Your task to perform on an android device: Open privacy settings Image 0: 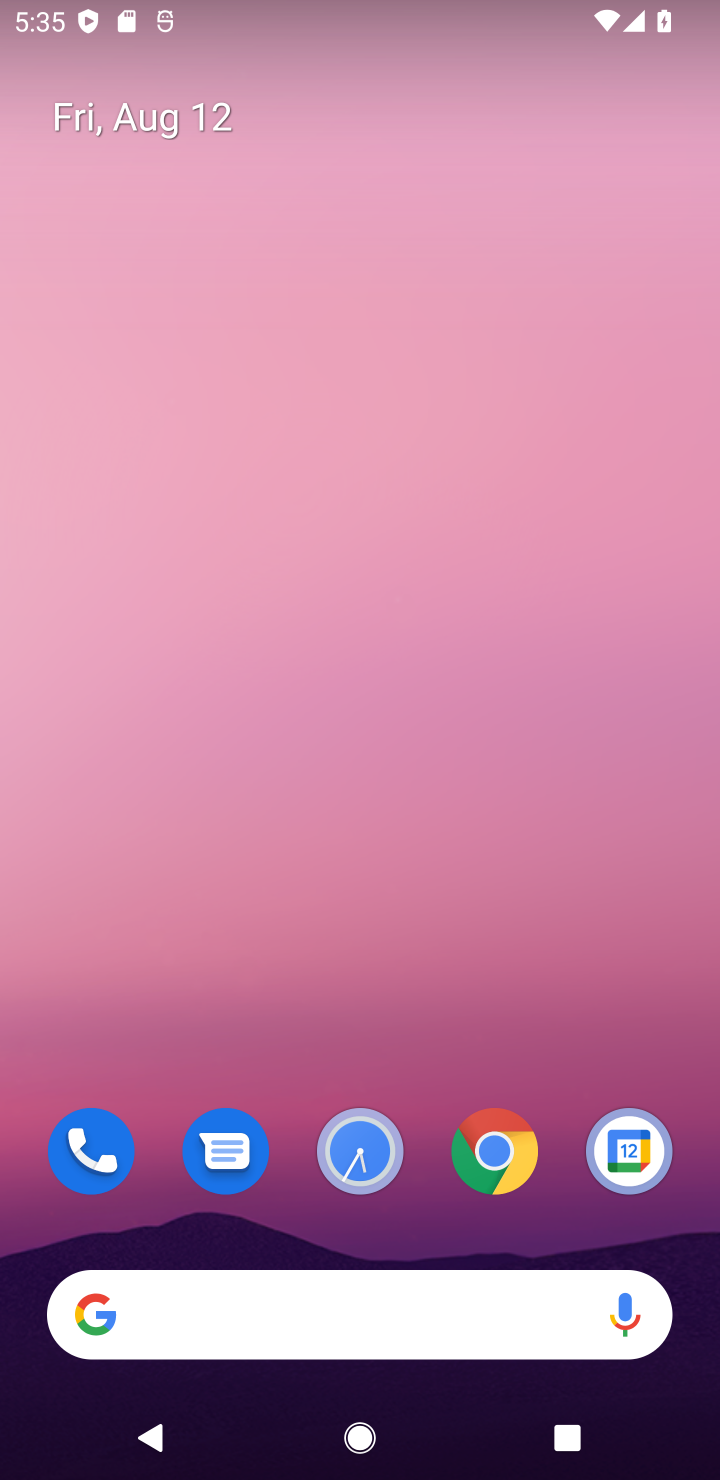
Step 0: drag from (506, 970) to (442, 82)
Your task to perform on an android device: Open privacy settings Image 1: 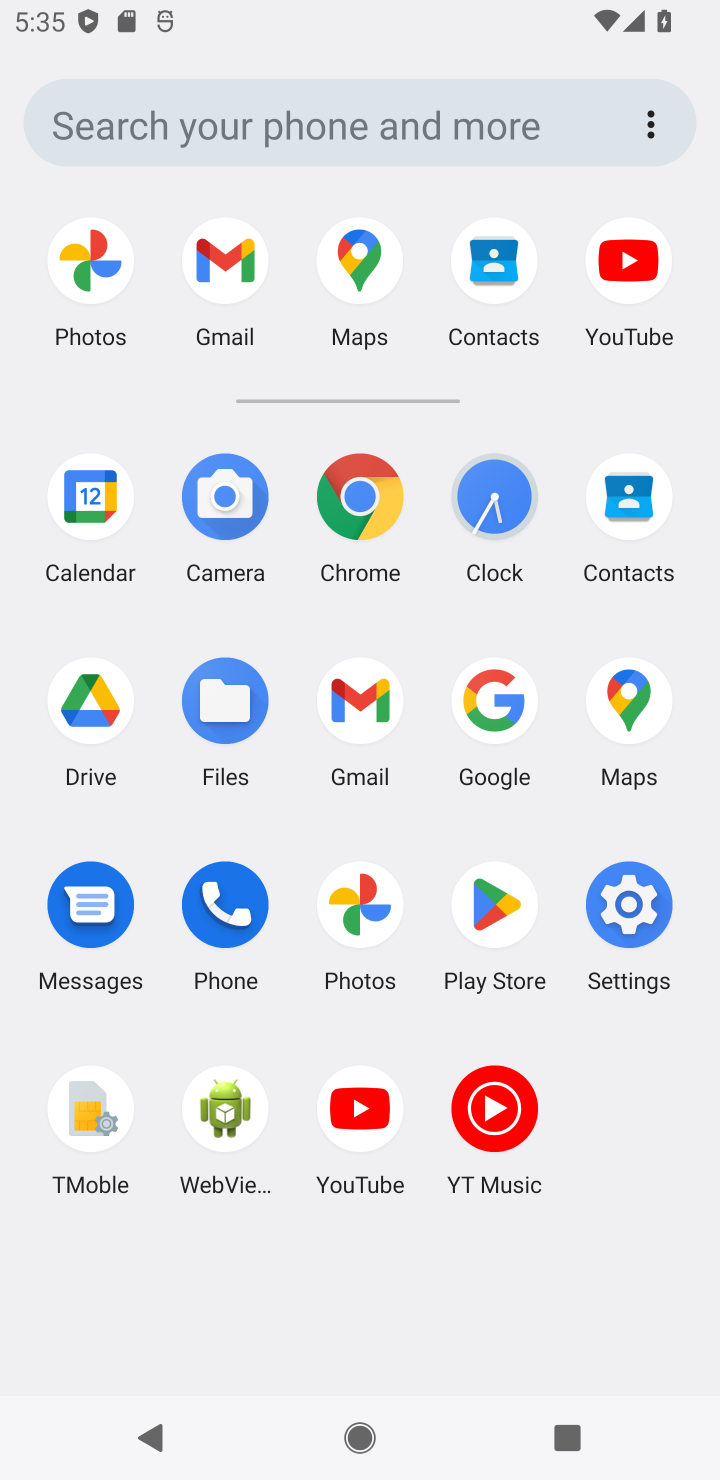
Step 1: click (639, 904)
Your task to perform on an android device: Open privacy settings Image 2: 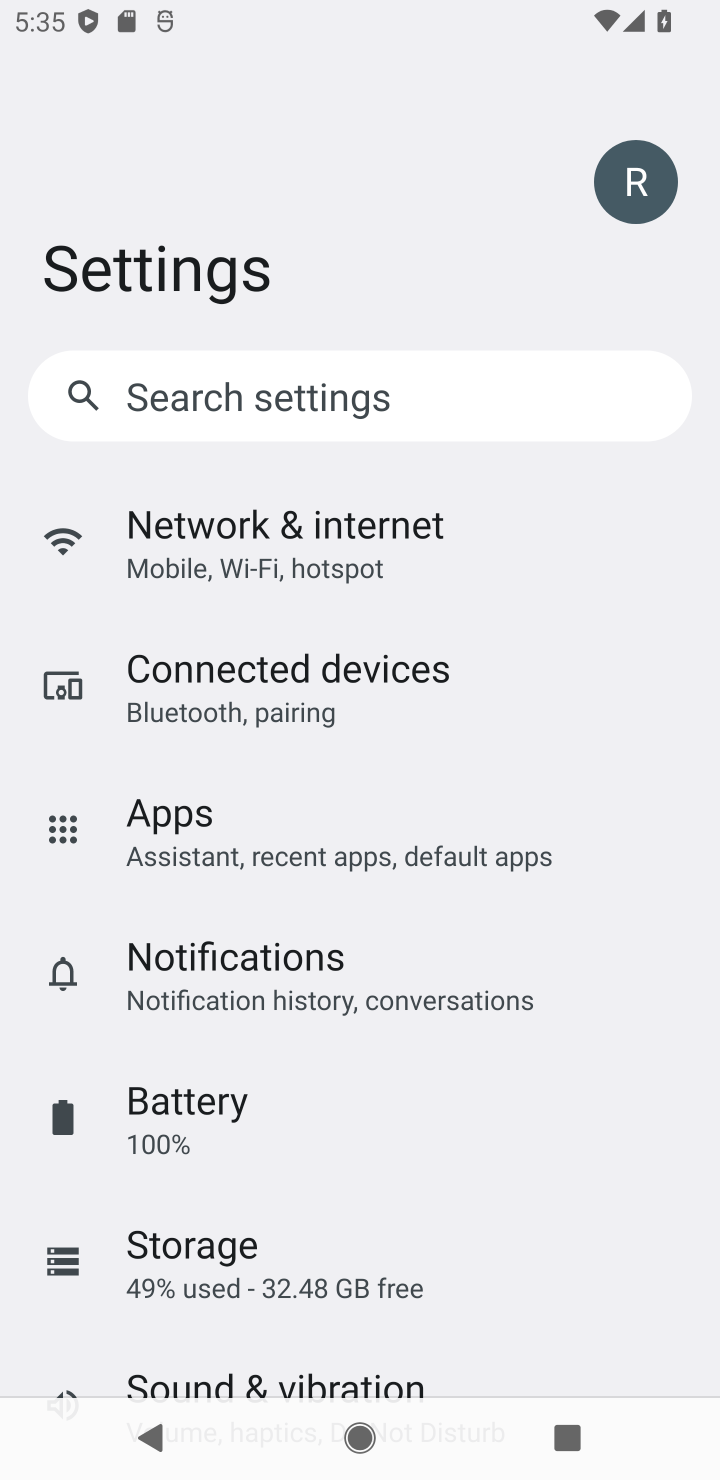
Step 2: drag from (434, 1090) to (387, 308)
Your task to perform on an android device: Open privacy settings Image 3: 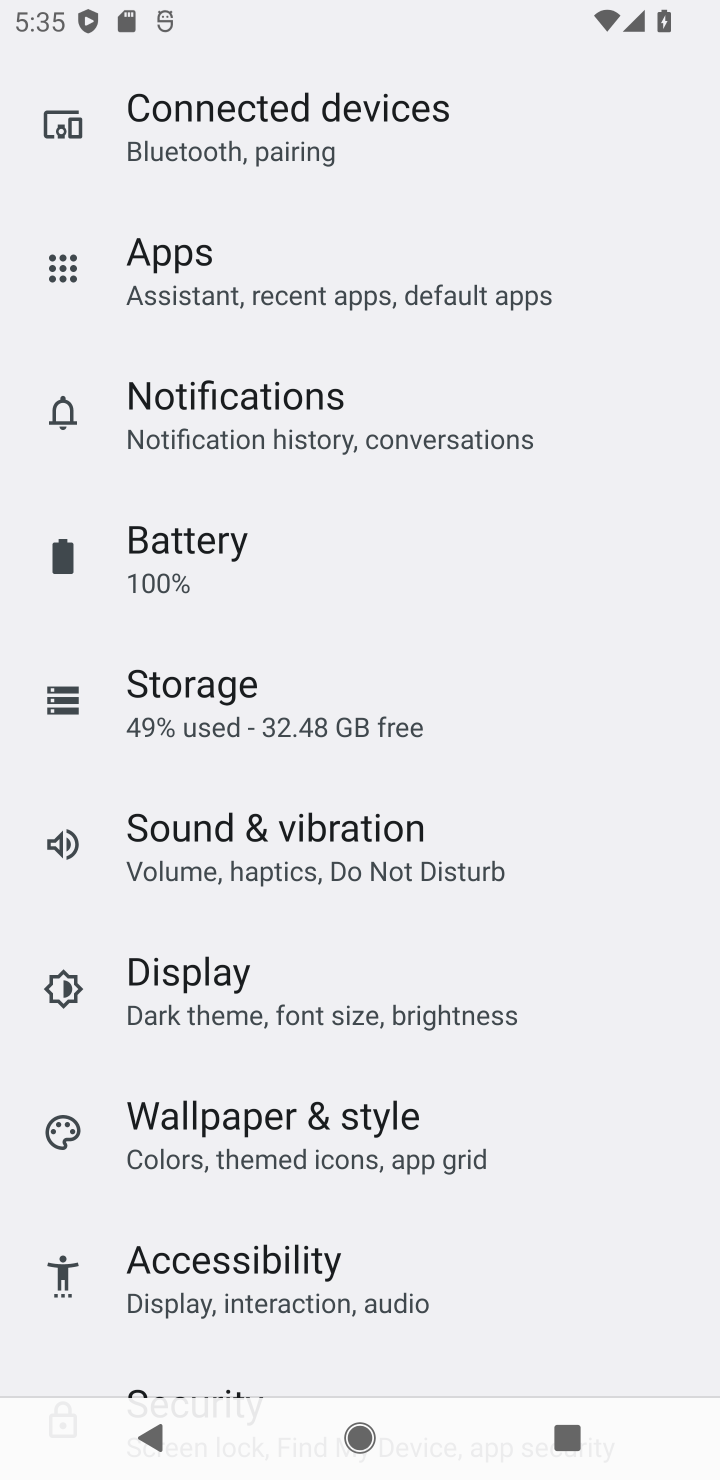
Step 3: drag from (572, 1106) to (511, 422)
Your task to perform on an android device: Open privacy settings Image 4: 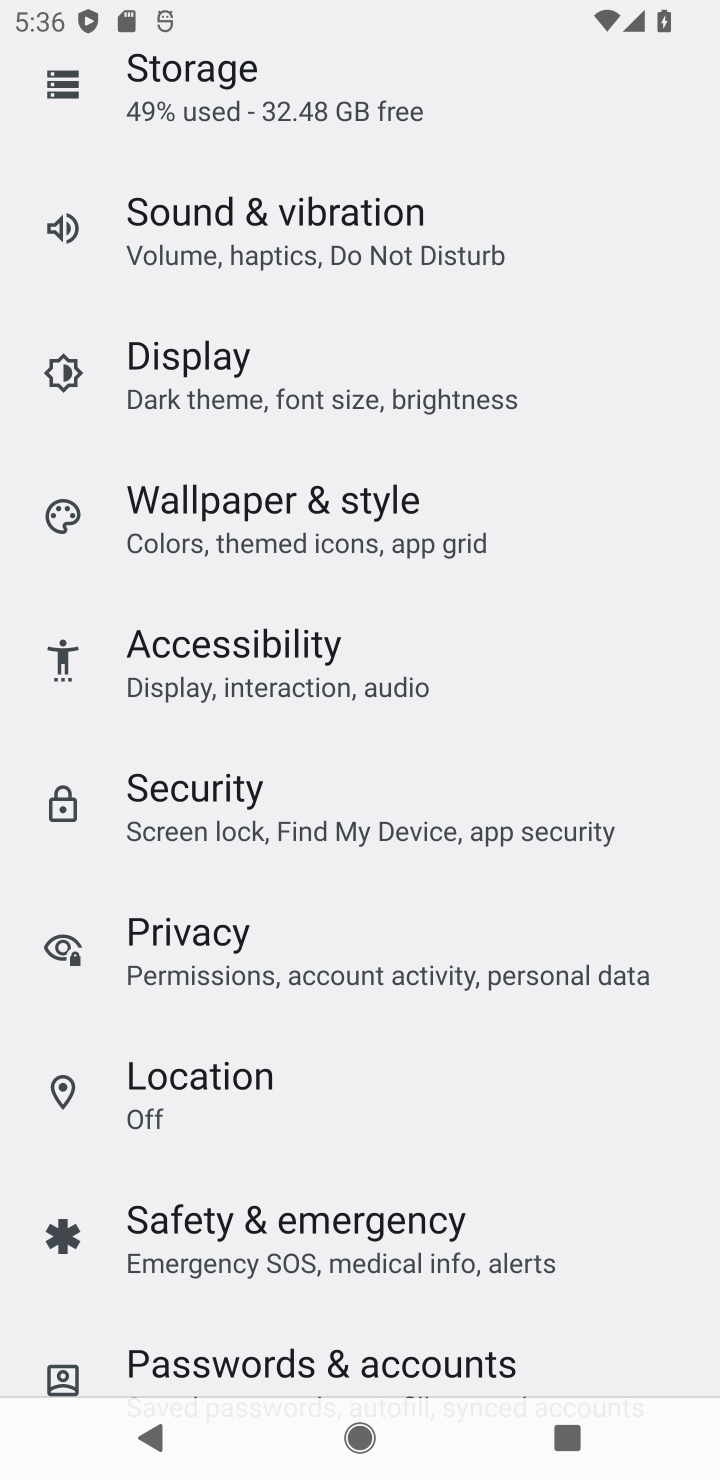
Step 4: click (335, 984)
Your task to perform on an android device: Open privacy settings Image 5: 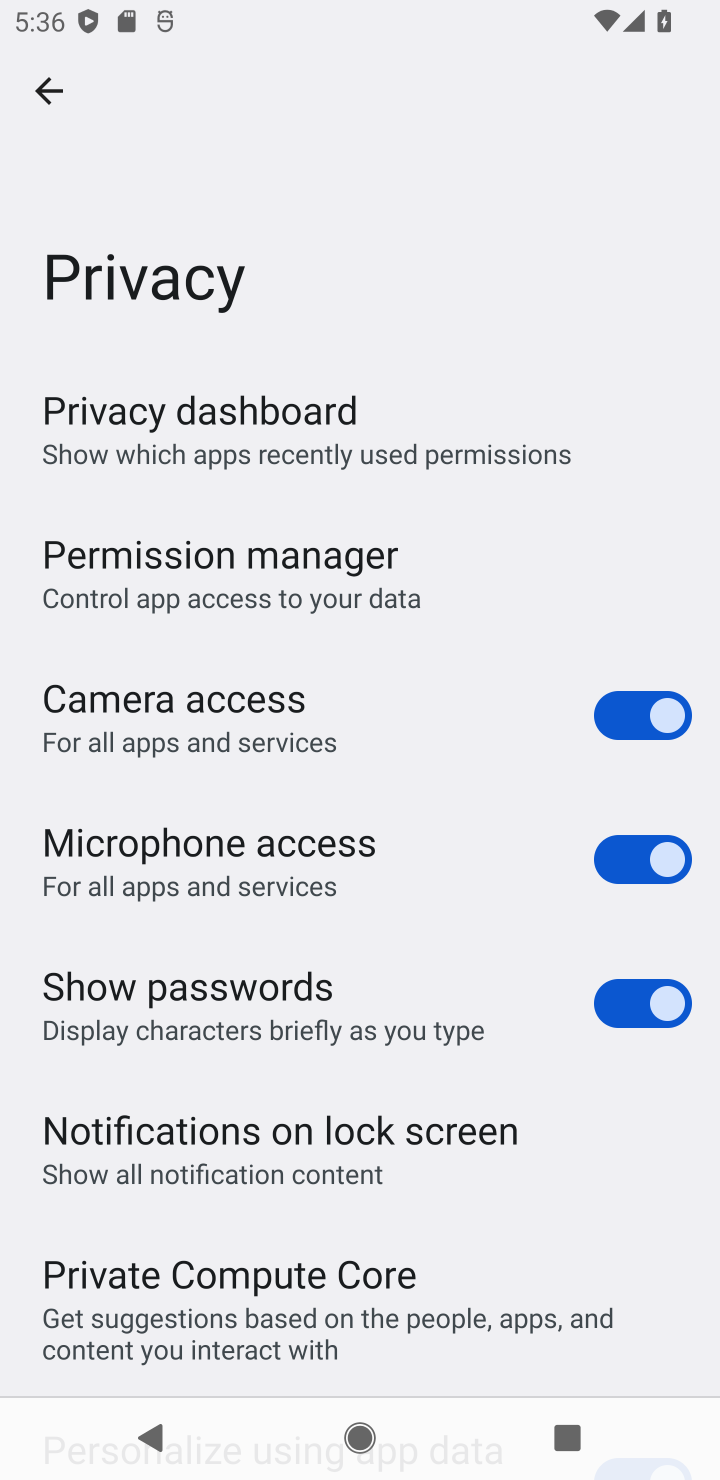
Step 5: task complete